Your task to perform on an android device: Open internet settings Image 0: 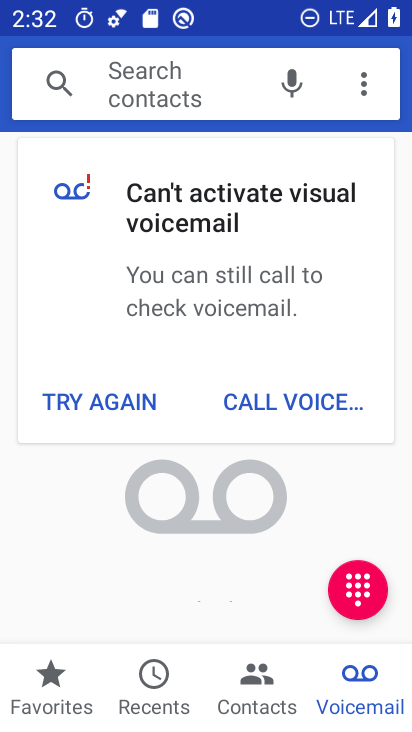
Step 0: press home button
Your task to perform on an android device: Open internet settings Image 1: 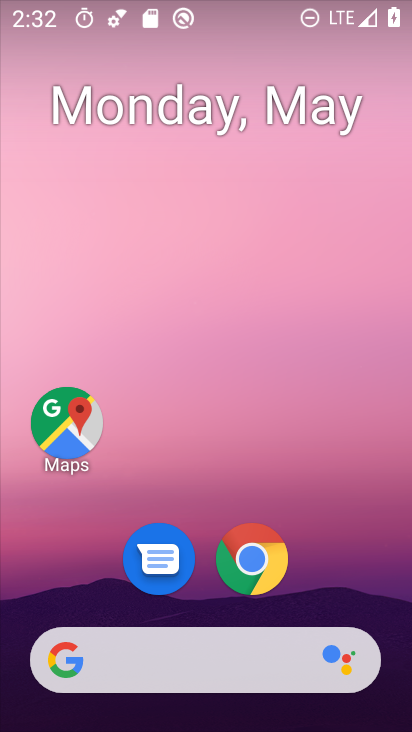
Step 1: drag from (362, 612) to (369, 26)
Your task to perform on an android device: Open internet settings Image 2: 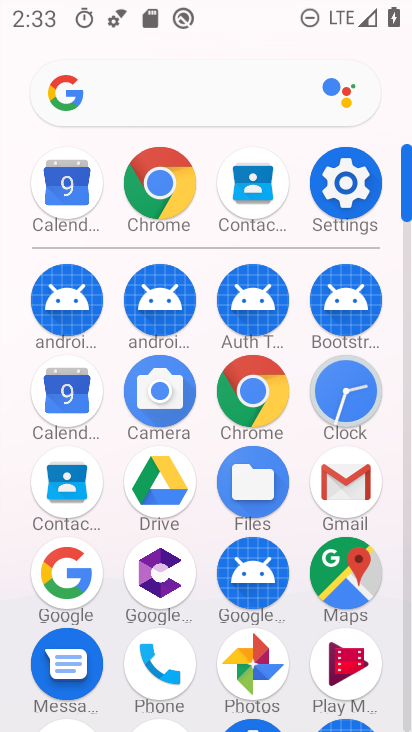
Step 2: click (339, 197)
Your task to perform on an android device: Open internet settings Image 3: 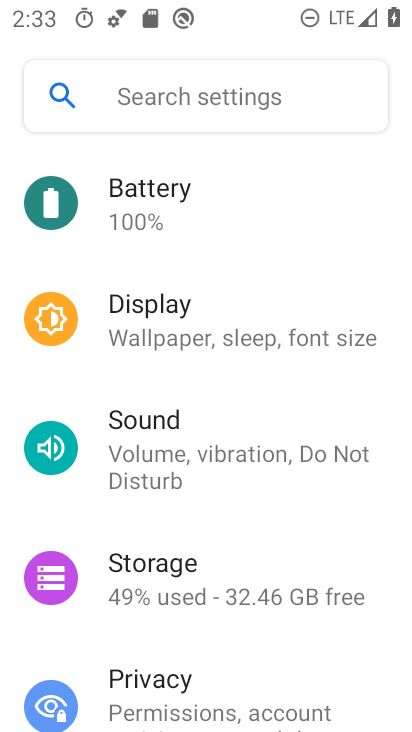
Step 3: drag from (248, 658) to (285, 724)
Your task to perform on an android device: Open internet settings Image 4: 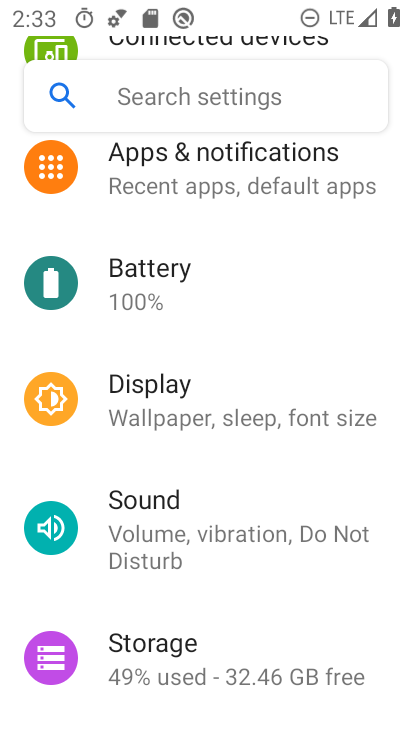
Step 4: drag from (295, 317) to (299, 603)
Your task to perform on an android device: Open internet settings Image 5: 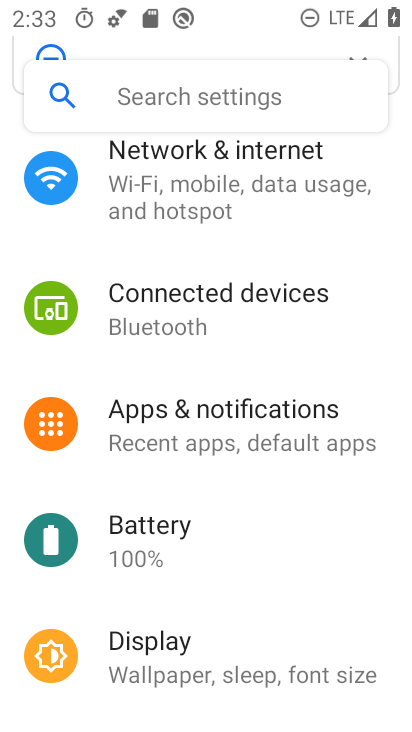
Step 5: click (220, 186)
Your task to perform on an android device: Open internet settings Image 6: 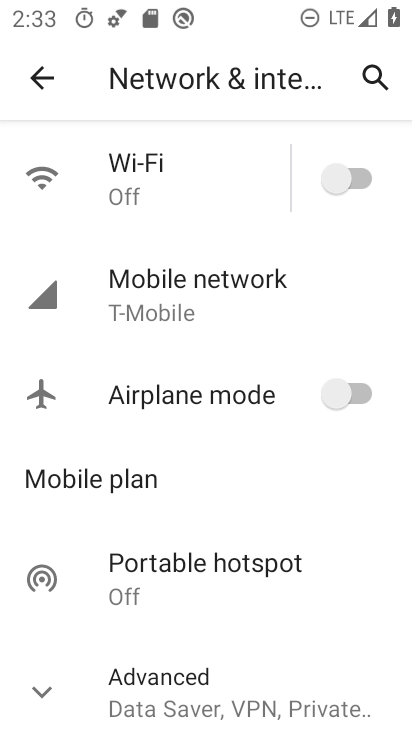
Step 6: drag from (231, 578) to (228, 255)
Your task to perform on an android device: Open internet settings Image 7: 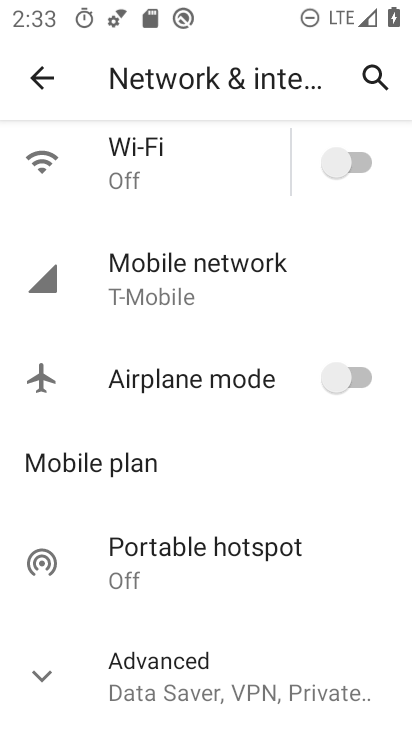
Step 7: click (37, 684)
Your task to perform on an android device: Open internet settings Image 8: 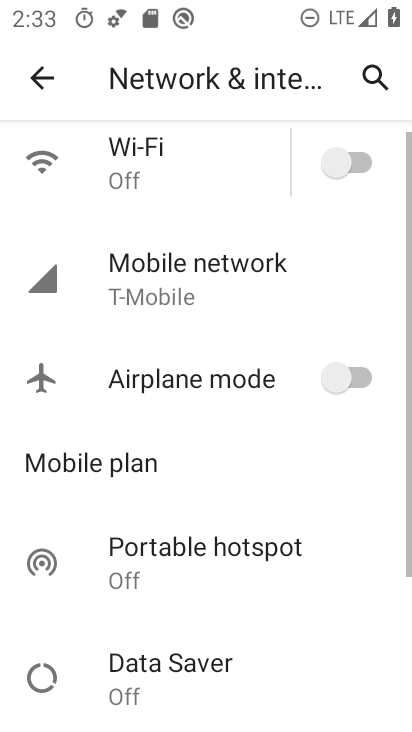
Step 8: task complete